Your task to perform on an android device: change the clock display to analog Image 0: 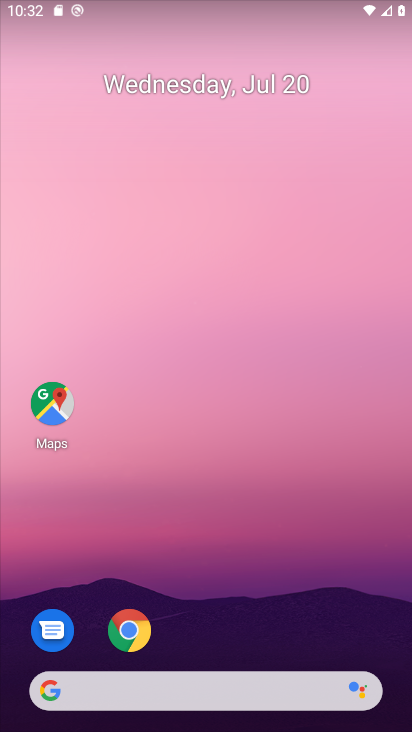
Step 0: drag from (243, 600) to (215, 293)
Your task to perform on an android device: change the clock display to analog Image 1: 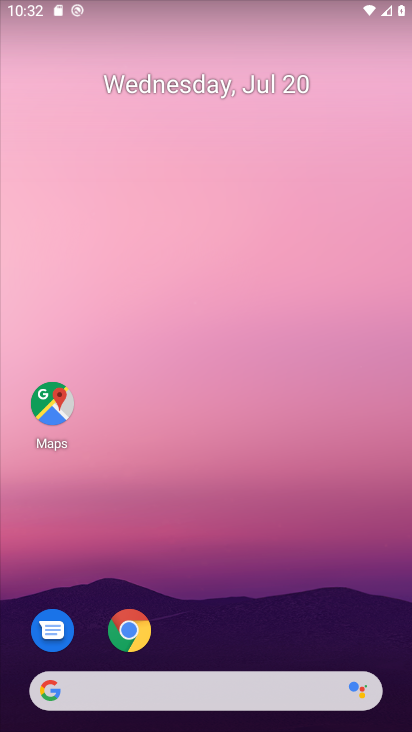
Step 1: drag from (272, 666) to (205, 320)
Your task to perform on an android device: change the clock display to analog Image 2: 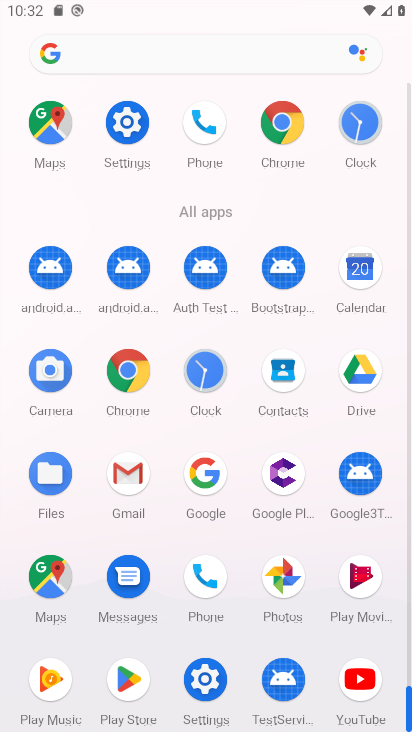
Step 2: click (209, 372)
Your task to perform on an android device: change the clock display to analog Image 3: 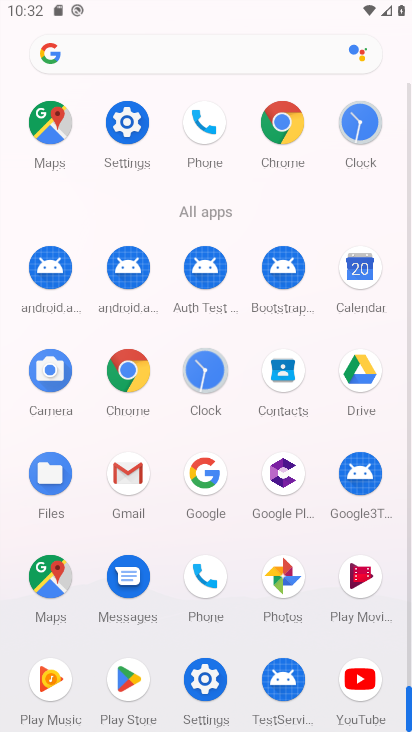
Step 3: click (201, 378)
Your task to perform on an android device: change the clock display to analog Image 4: 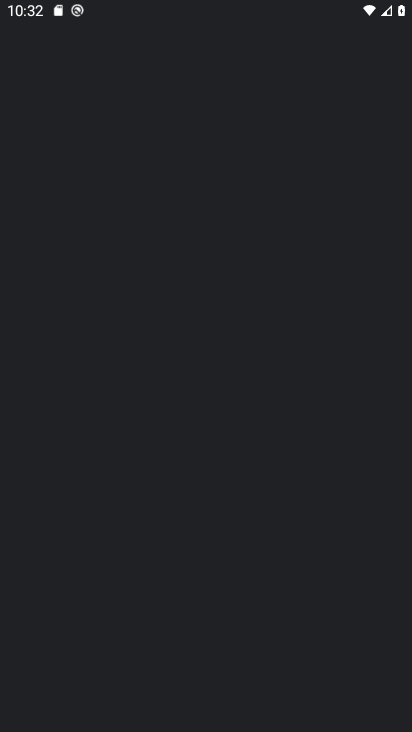
Step 4: click (201, 379)
Your task to perform on an android device: change the clock display to analog Image 5: 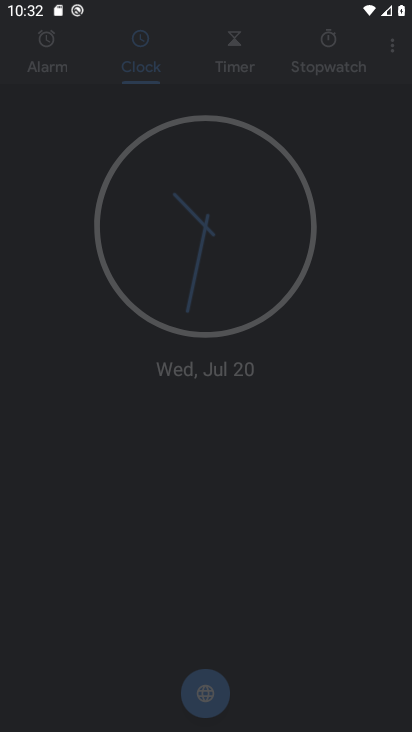
Step 5: click (202, 379)
Your task to perform on an android device: change the clock display to analog Image 6: 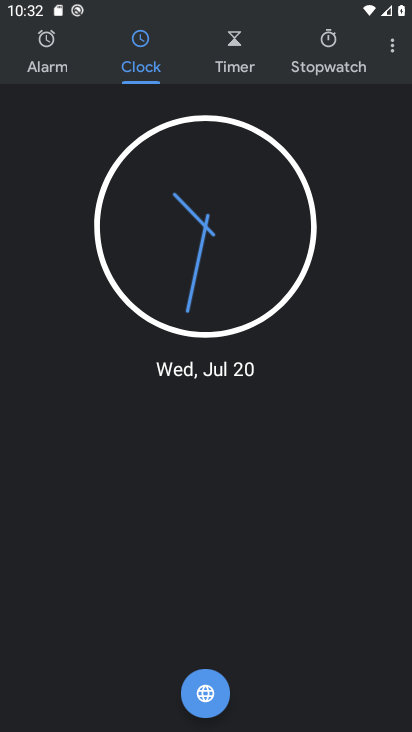
Step 6: click (204, 379)
Your task to perform on an android device: change the clock display to analog Image 7: 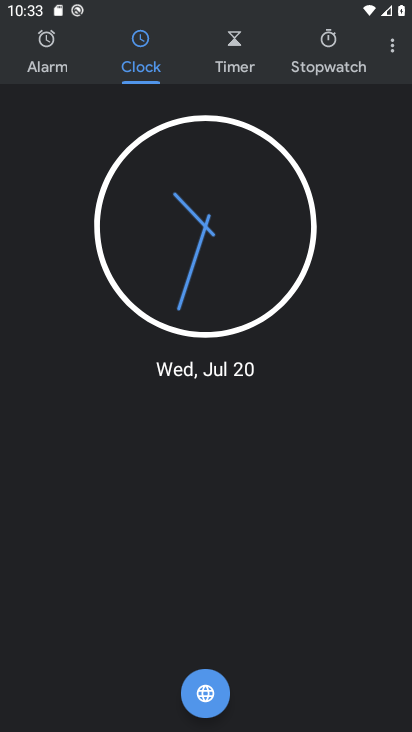
Step 7: click (384, 52)
Your task to perform on an android device: change the clock display to analog Image 8: 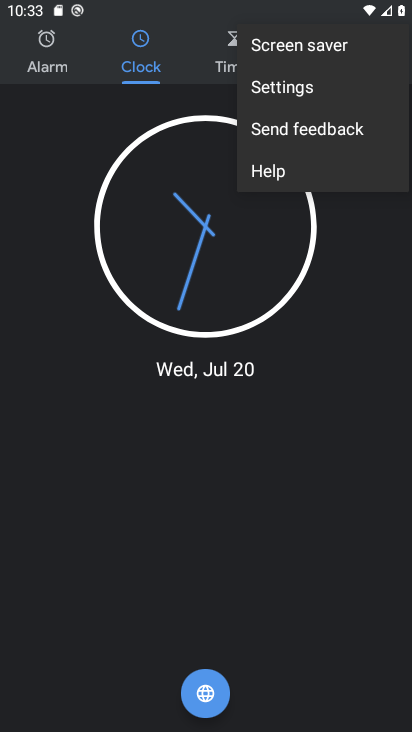
Step 8: click (285, 94)
Your task to perform on an android device: change the clock display to analog Image 9: 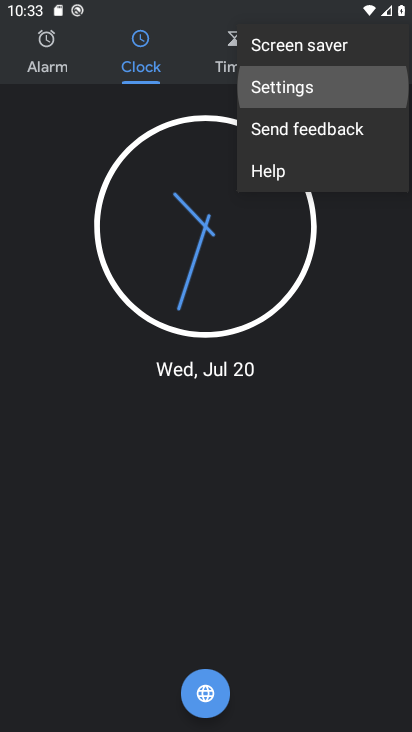
Step 9: click (284, 93)
Your task to perform on an android device: change the clock display to analog Image 10: 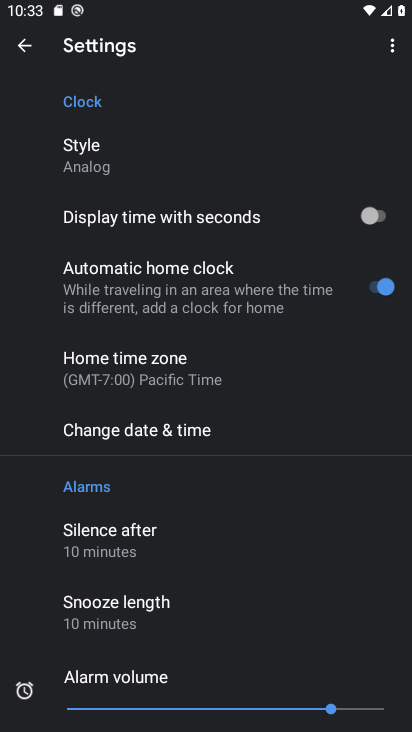
Step 10: click (100, 150)
Your task to perform on an android device: change the clock display to analog Image 11: 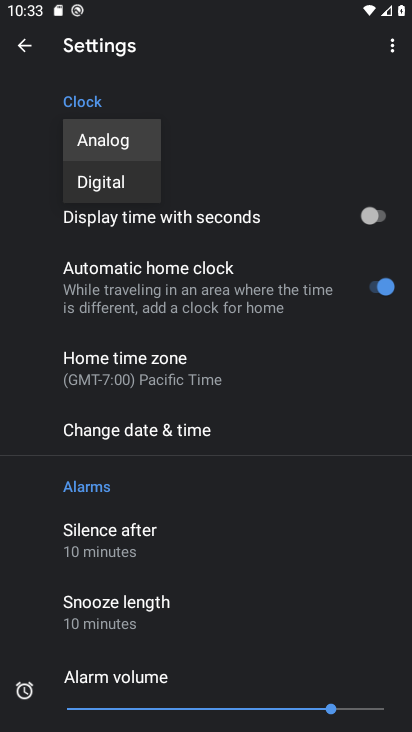
Step 11: click (113, 133)
Your task to perform on an android device: change the clock display to analog Image 12: 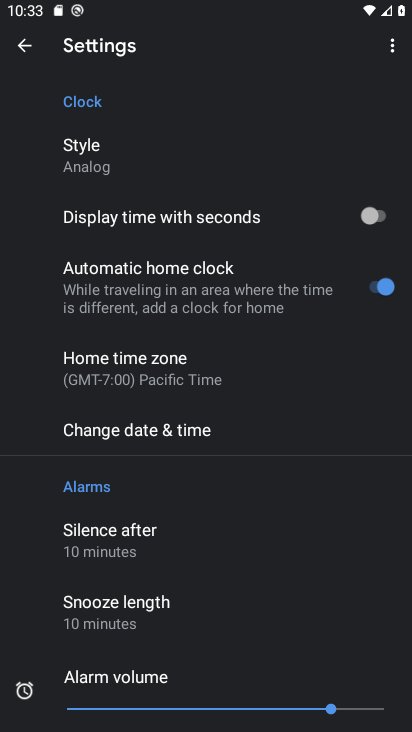
Step 12: task complete